Your task to perform on an android device: Go to Reddit.com Image 0: 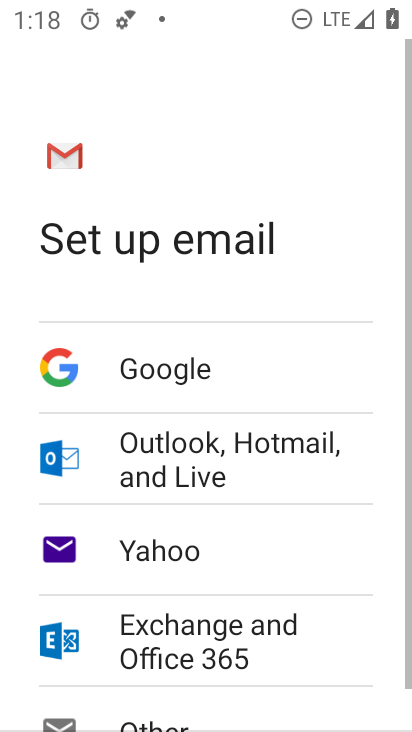
Step 0: press home button
Your task to perform on an android device: Go to Reddit.com Image 1: 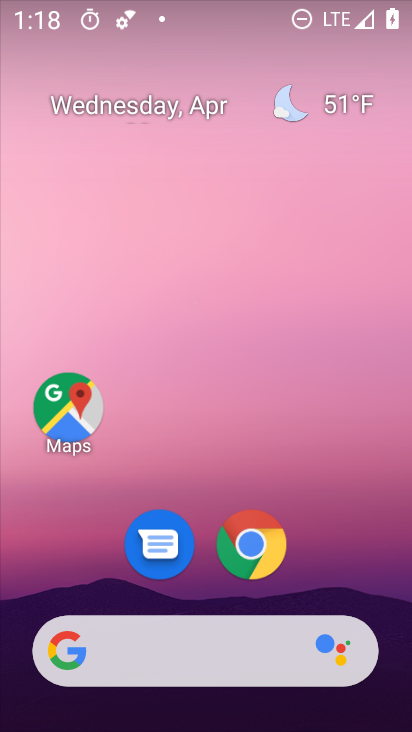
Step 1: drag from (334, 530) to (335, 200)
Your task to perform on an android device: Go to Reddit.com Image 2: 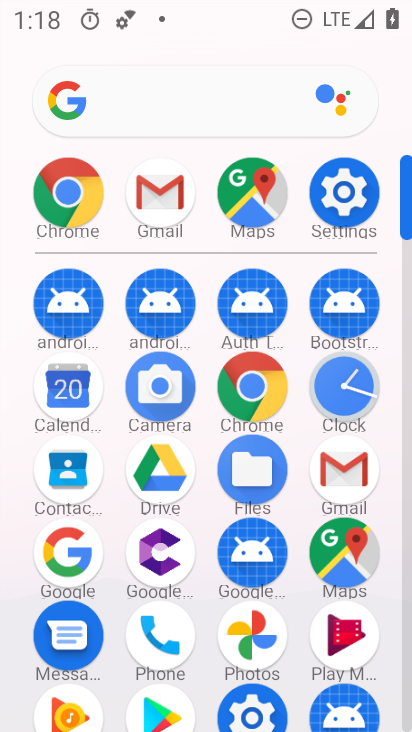
Step 2: click (257, 383)
Your task to perform on an android device: Go to Reddit.com Image 3: 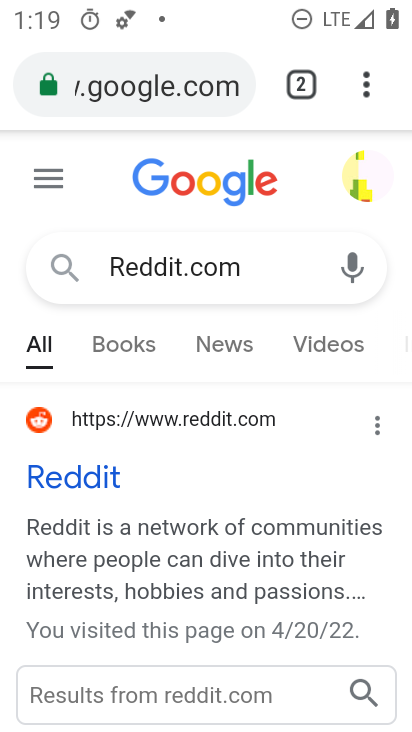
Step 3: task complete